Your task to perform on an android device: Set the phone to "Do not disturb". Image 0: 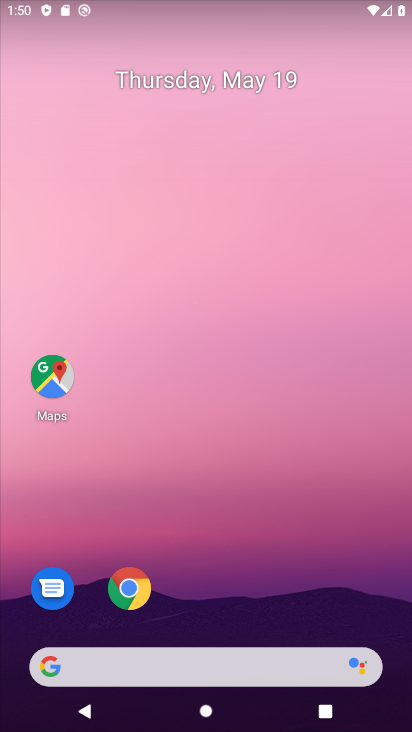
Step 0: drag from (319, 597) to (278, 0)
Your task to perform on an android device: Set the phone to "Do not disturb". Image 1: 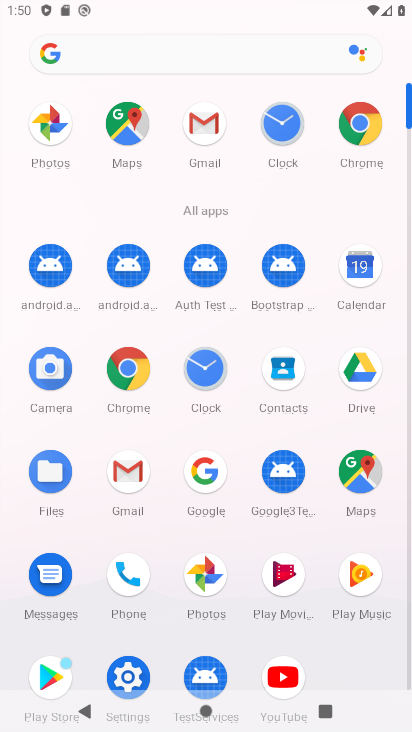
Step 1: click (124, 659)
Your task to perform on an android device: Set the phone to "Do not disturb". Image 2: 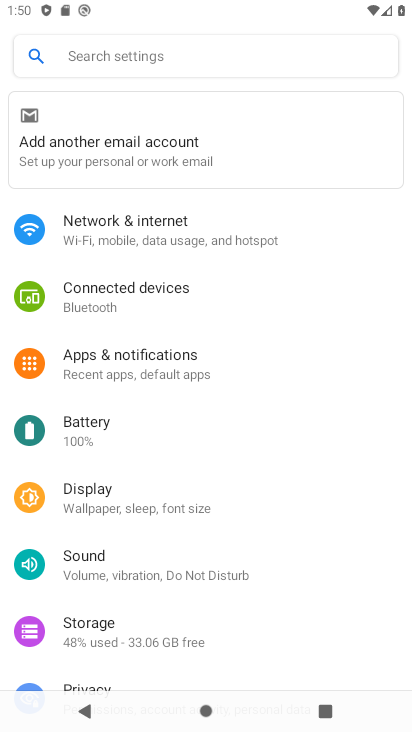
Step 2: click (94, 559)
Your task to perform on an android device: Set the phone to "Do not disturb". Image 3: 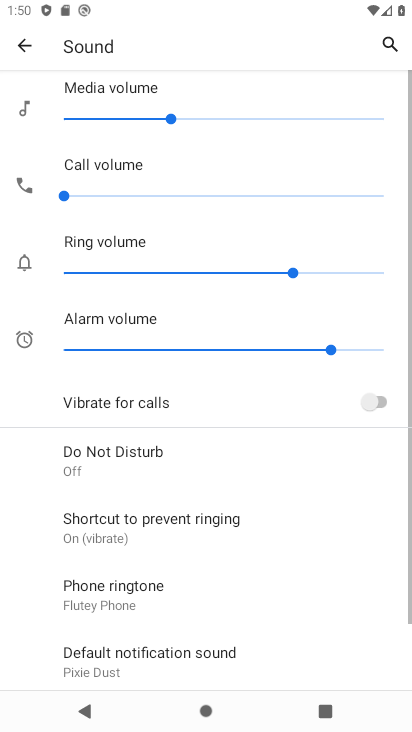
Step 3: click (79, 465)
Your task to perform on an android device: Set the phone to "Do not disturb". Image 4: 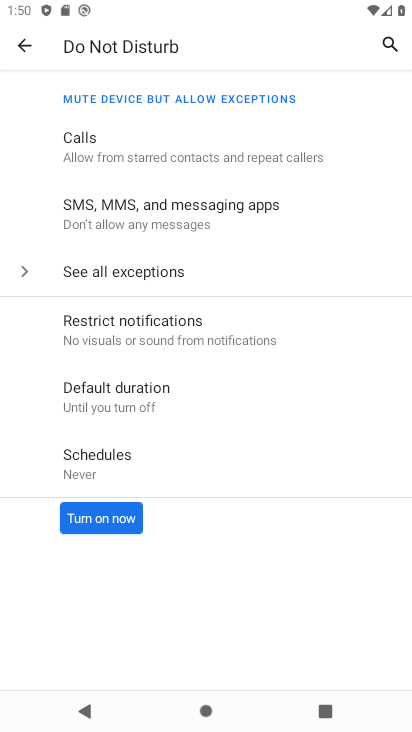
Step 4: click (85, 527)
Your task to perform on an android device: Set the phone to "Do not disturb". Image 5: 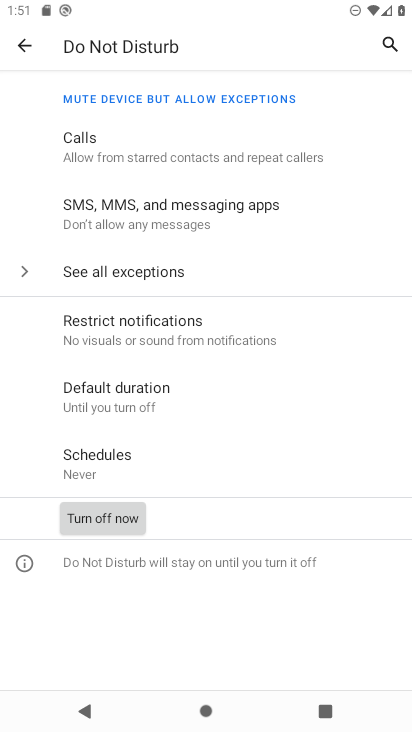
Step 5: task complete